Your task to perform on an android device: Find coffee shops on Maps Image 0: 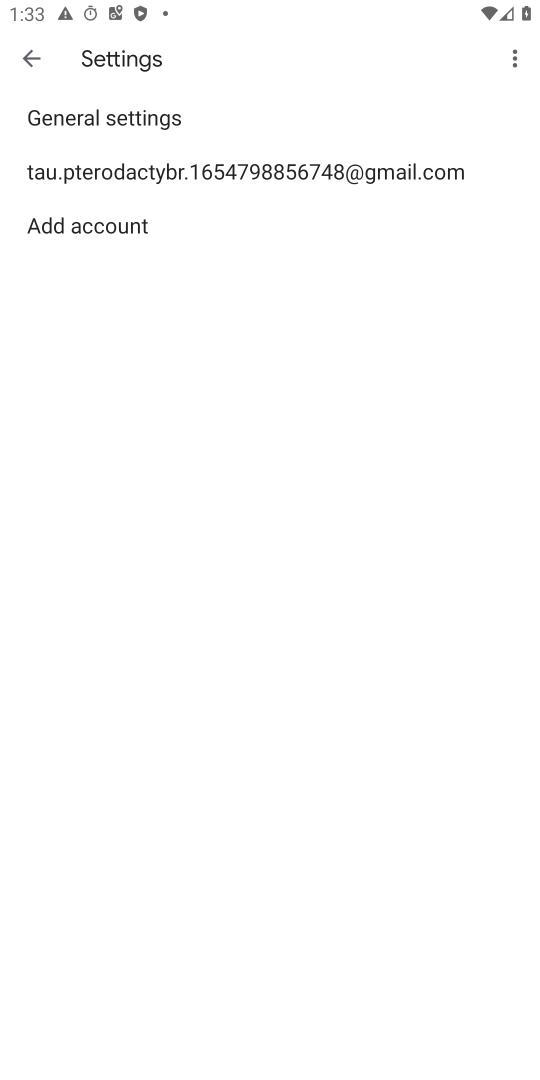
Step 0: press home button
Your task to perform on an android device: Find coffee shops on Maps Image 1: 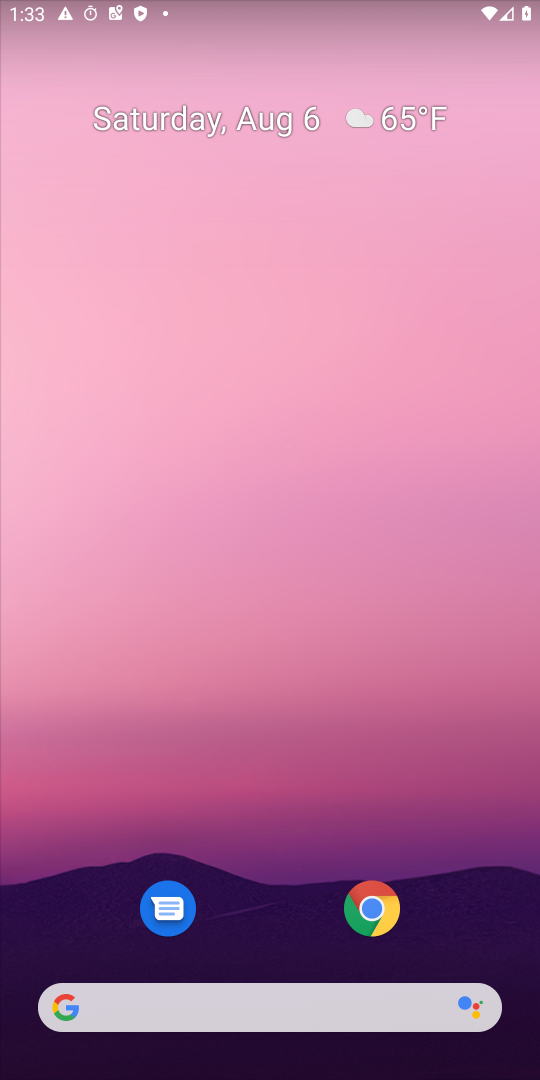
Step 1: drag from (297, 872) to (280, 212)
Your task to perform on an android device: Find coffee shops on Maps Image 2: 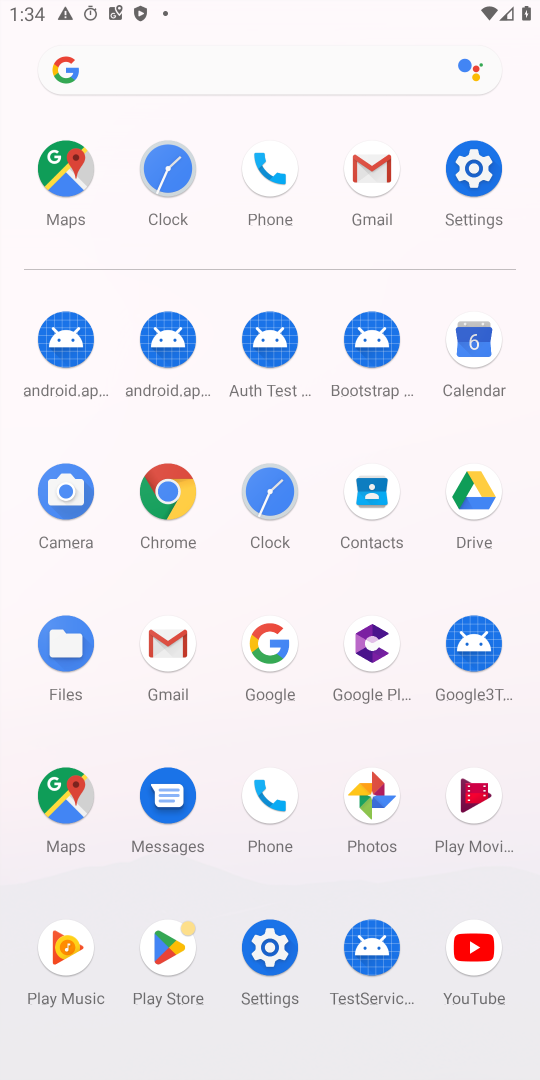
Step 2: click (60, 817)
Your task to perform on an android device: Find coffee shops on Maps Image 3: 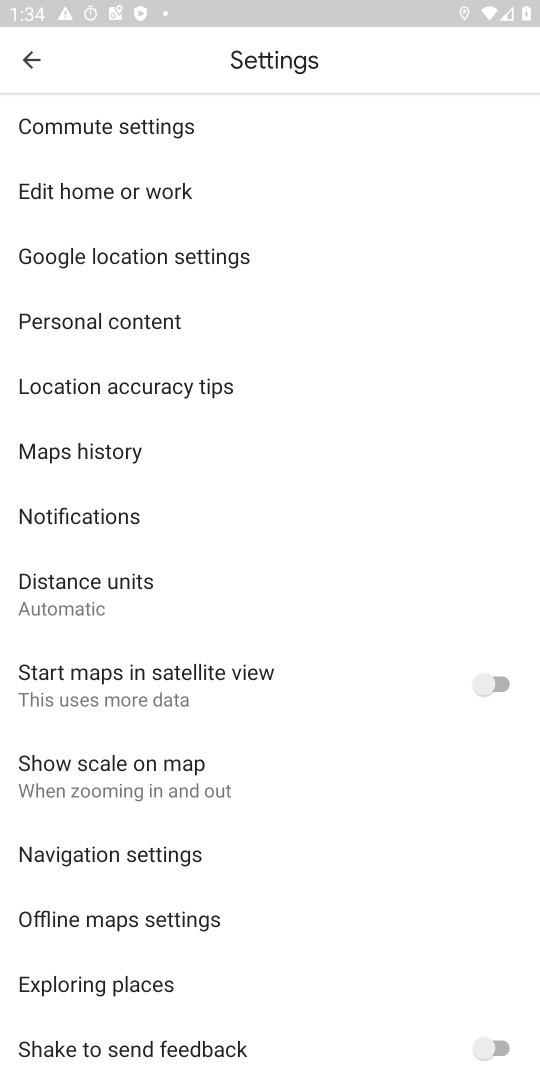
Step 3: click (23, 68)
Your task to perform on an android device: Find coffee shops on Maps Image 4: 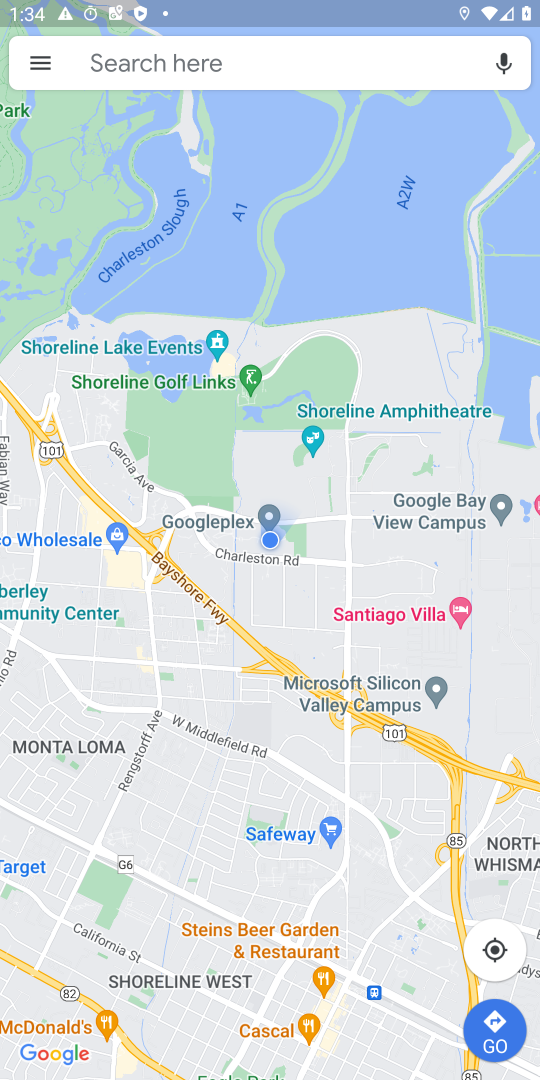
Step 4: click (160, 57)
Your task to perform on an android device: Find coffee shops on Maps Image 5: 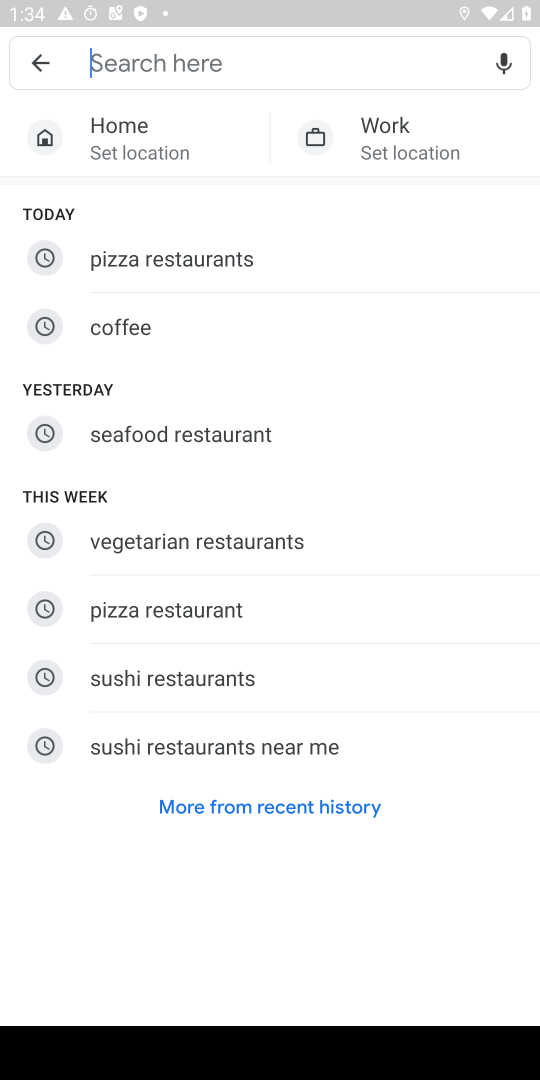
Step 5: type "coffee shops"
Your task to perform on an android device: Find coffee shops on Maps Image 6: 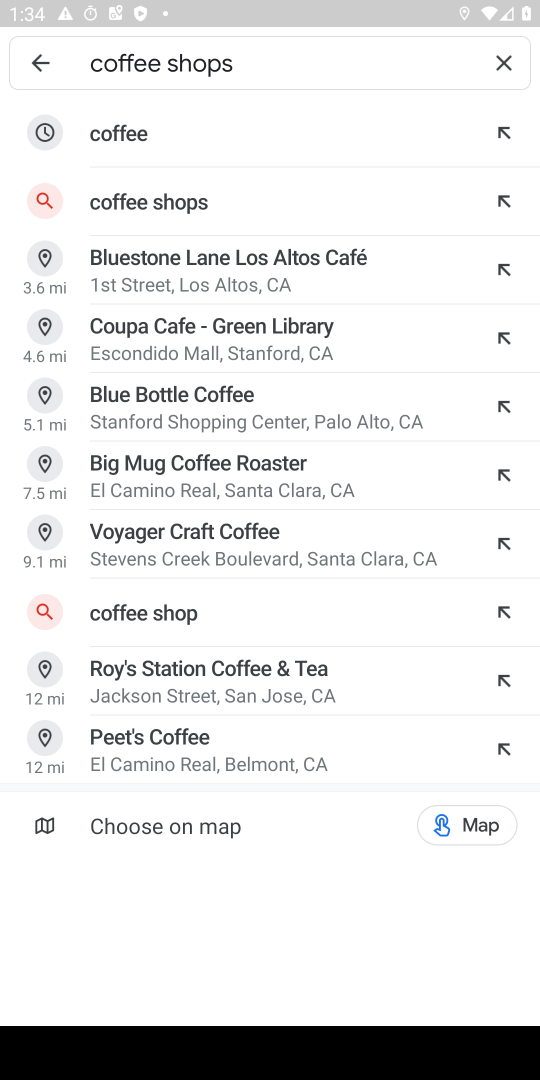
Step 6: click (231, 189)
Your task to perform on an android device: Find coffee shops on Maps Image 7: 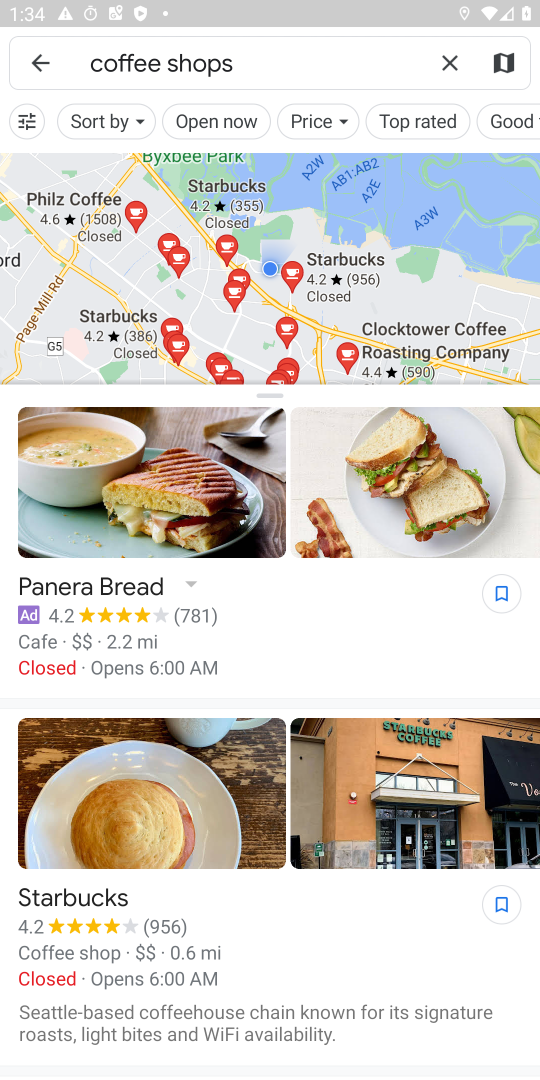
Step 7: task complete